Your task to perform on an android device: Open the web browser Image 0: 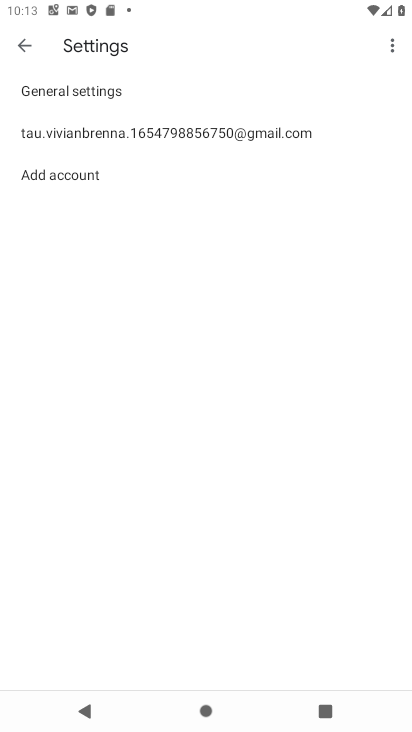
Step 0: press home button
Your task to perform on an android device: Open the web browser Image 1: 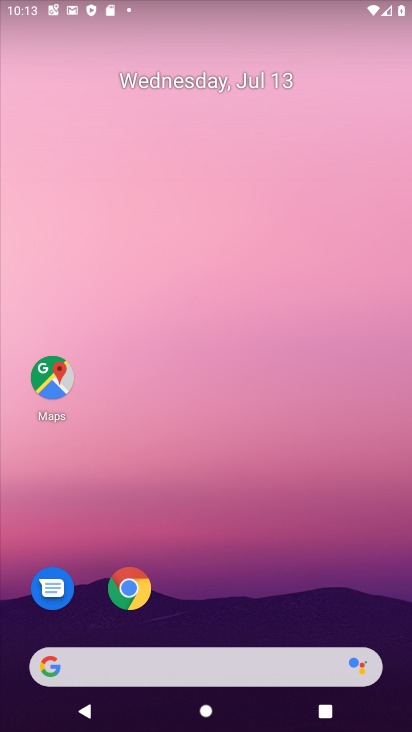
Step 1: click (227, 651)
Your task to perform on an android device: Open the web browser Image 2: 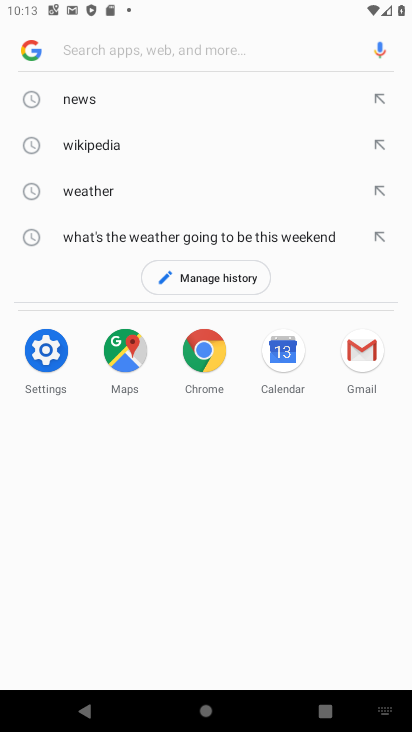
Step 2: task complete